Your task to perform on an android device: Go to accessibility settings Image 0: 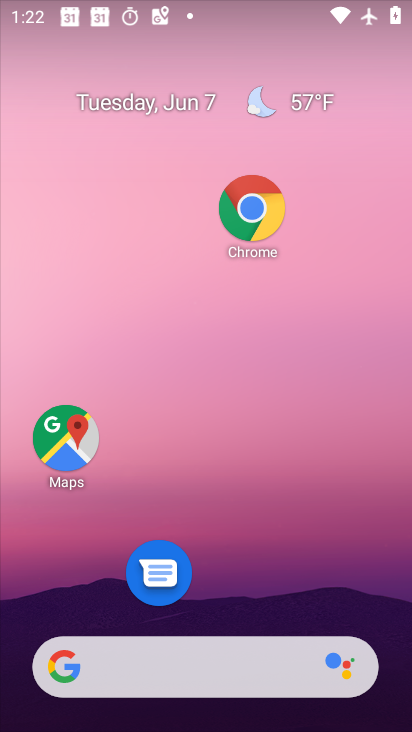
Step 0: drag from (195, 618) to (203, 225)
Your task to perform on an android device: Go to accessibility settings Image 1: 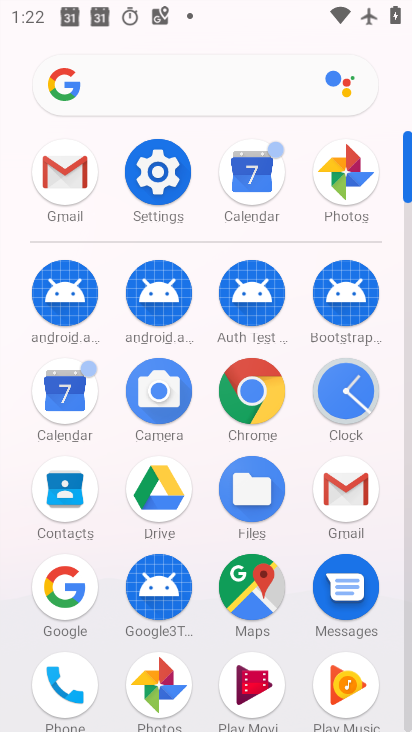
Step 1: click (169, 177)
Your task to perform on an android device: Go to accessibility settings Image 2: 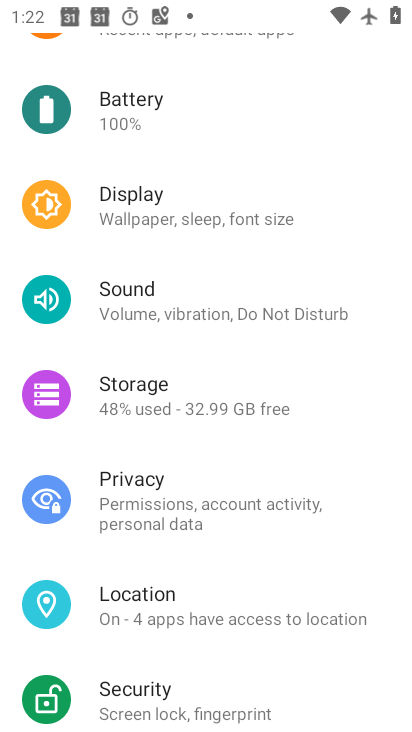
Step 2: drag from (204, 514) to (204, 289)
Your task to perform on an android device: Go to accessibility settings Image 3: 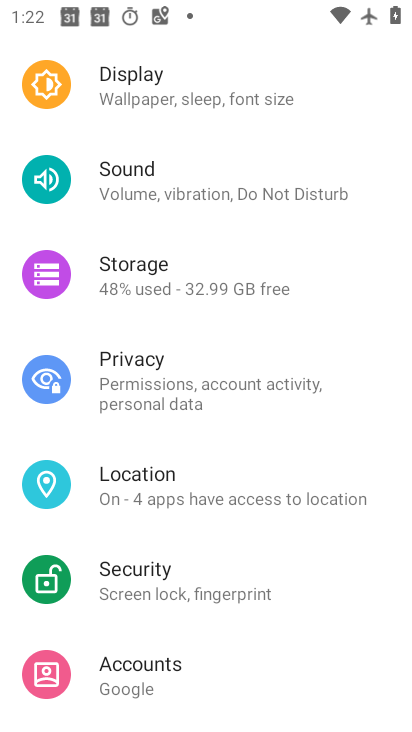
Step 3: drag from (222, 567) to (241, 296)
Your task to perform on an android device: Go to accessibility settings Image 4: 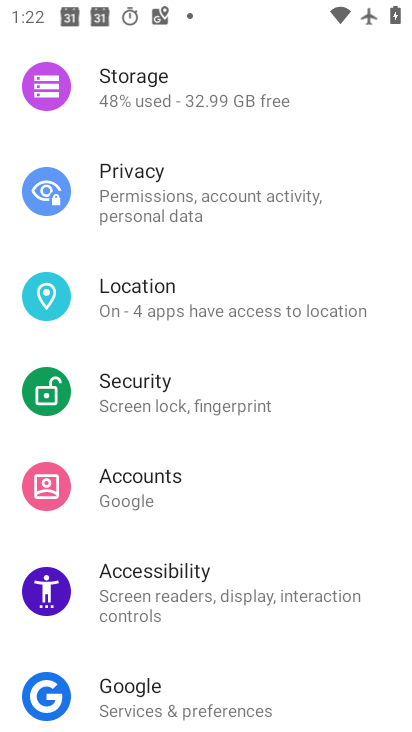
Step 4: drag from (215, 545) to (271, 303)
Your task to perform on an android device: Go to accessibility settings Image 5: 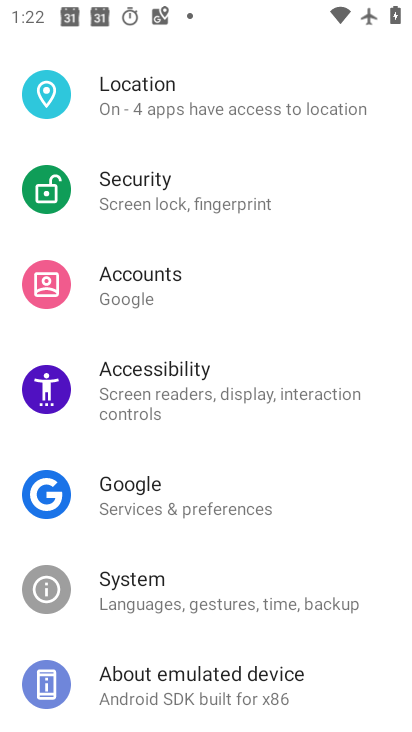
Step 5: click (187, 410)
Your task to perform on an android device: Go to accessibility settings Image 6: 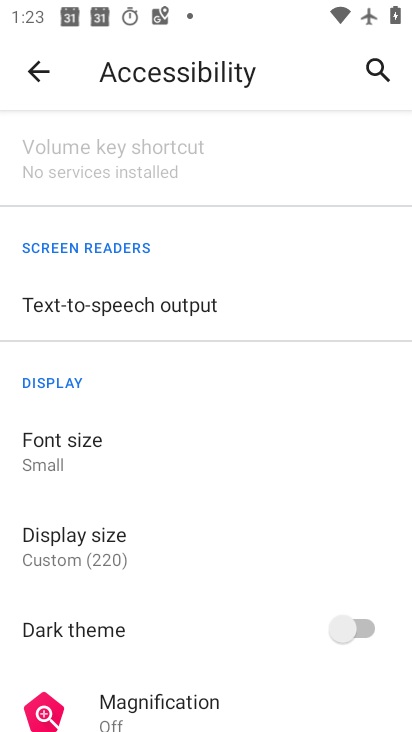
Step 6: task complete